Your task to perform on an android device: read, delete, or share a saved page in the chrome app Image 0: 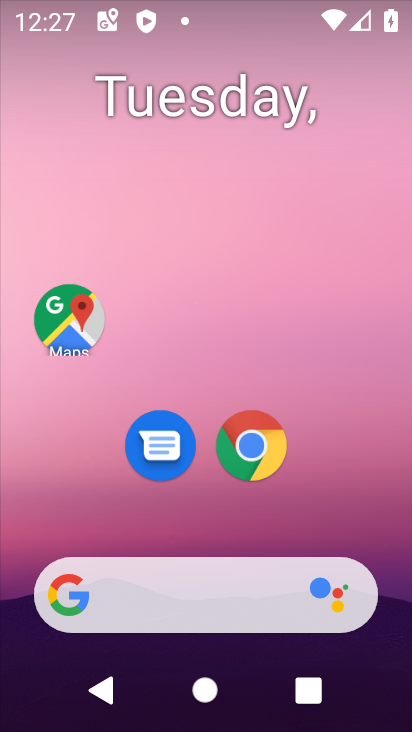
Step 0: drag from (334, 484) to (333, 0)
Your task to perform on an android device: read, delete, or share a saved page in the chrome app Image 1: 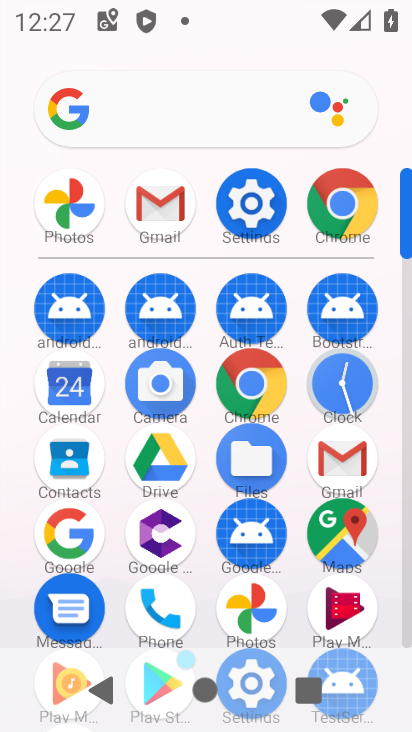
Step 1: click (320, 221)
Your task to perform on an android device: read, delete, or share a saved page in the chrome app Image 2: 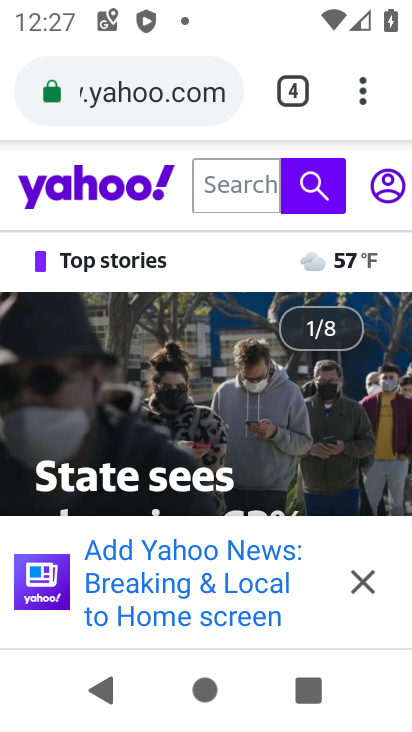
Step 2: task complete